Your task to perform on an android device: open app "Viber Messenger" (install if not already installed) and go to login screen Image 0: 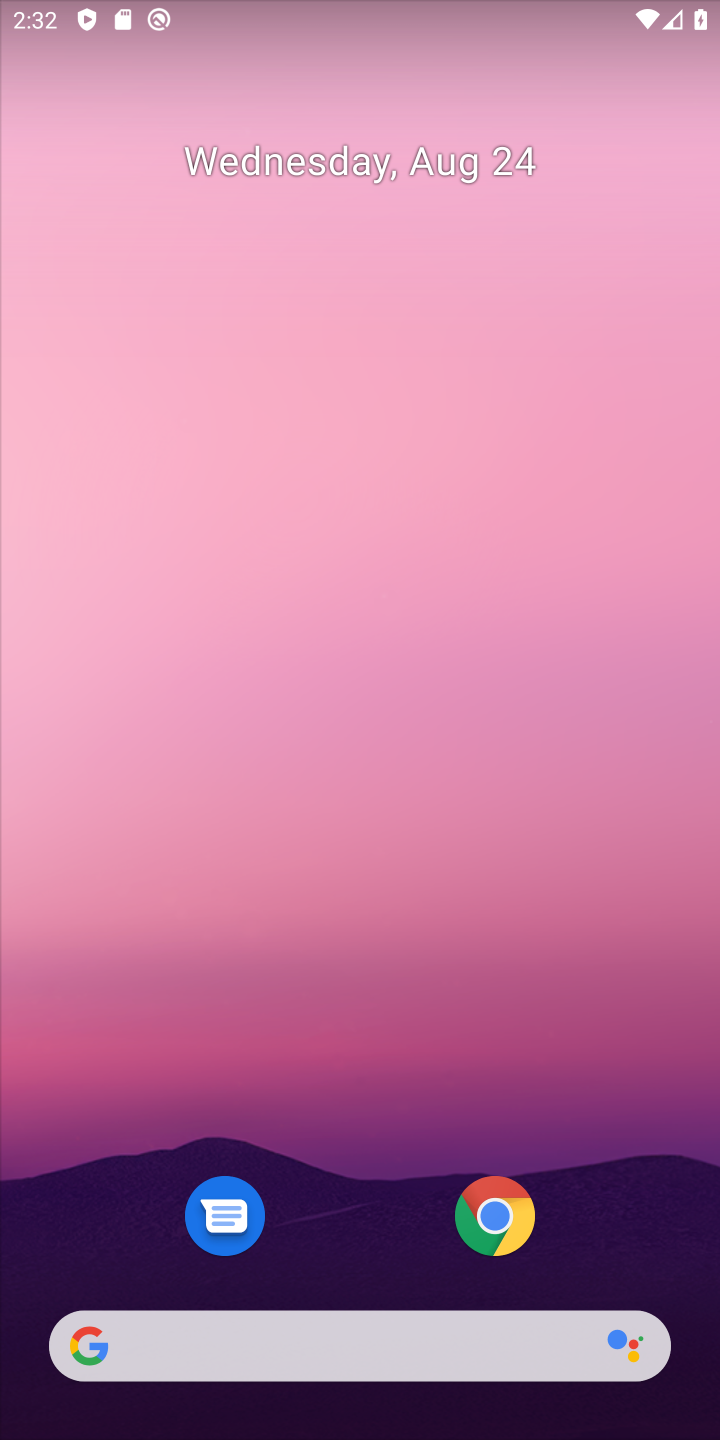
Step 0: press home button
Your task to perform on an android device: open app "Viber Messenger" (install if not already installed) and go to login screen Image 1: 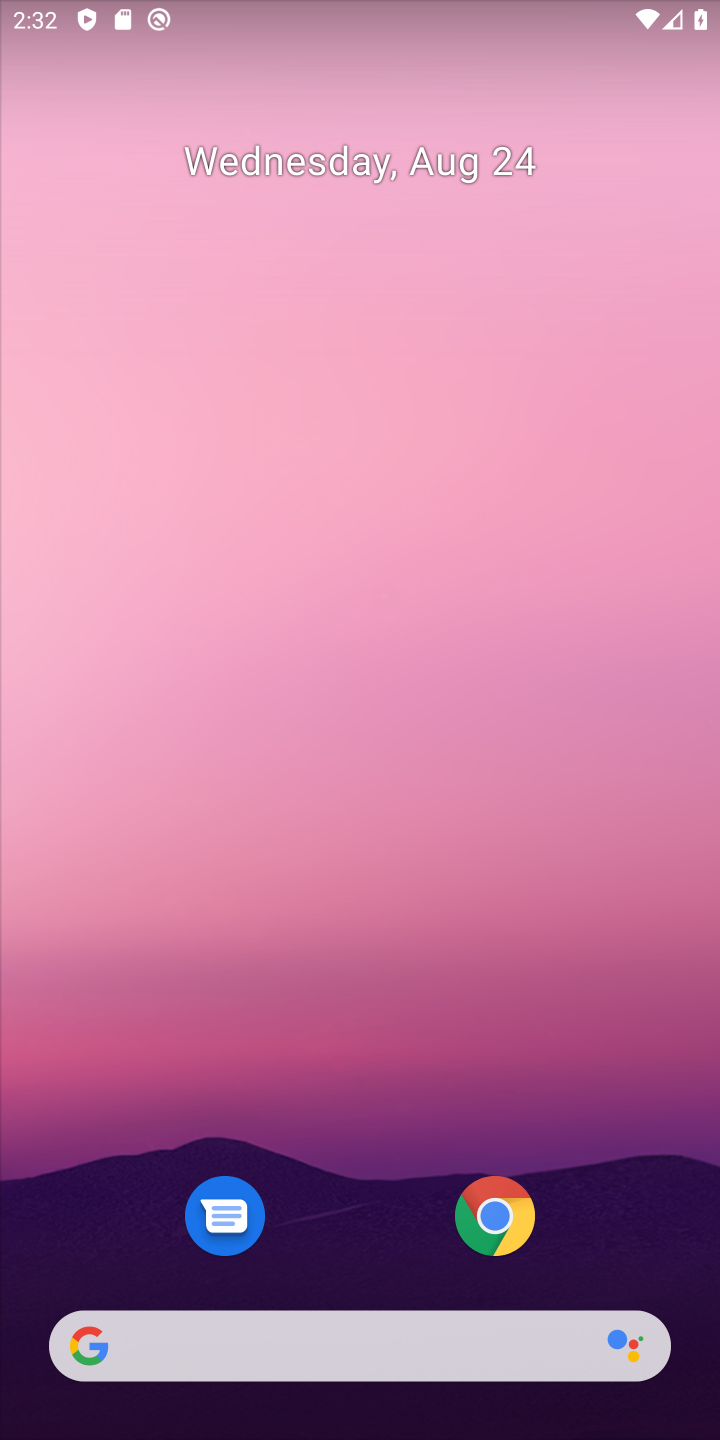
Step 1: drag from (677, 1169) to (720, 914)
Your task to perform on an android device: open app "Viber Messenger" (install if not already installed) and go to login screen Image 2: 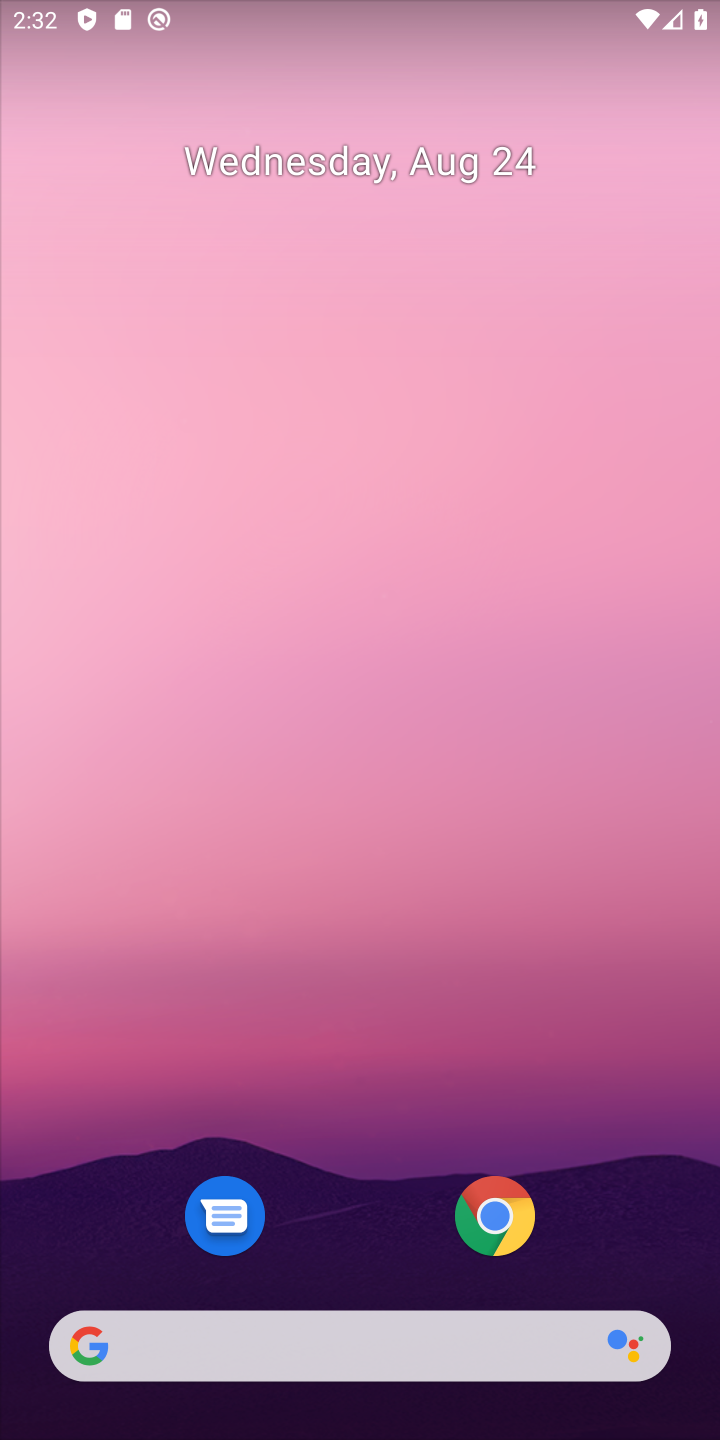
Step 2: drag from (647, 1235) to (597, 57)
Your task to perform on an android device: open app "Viber Messenger" (install if not already installed) and go to login screen Image 3: 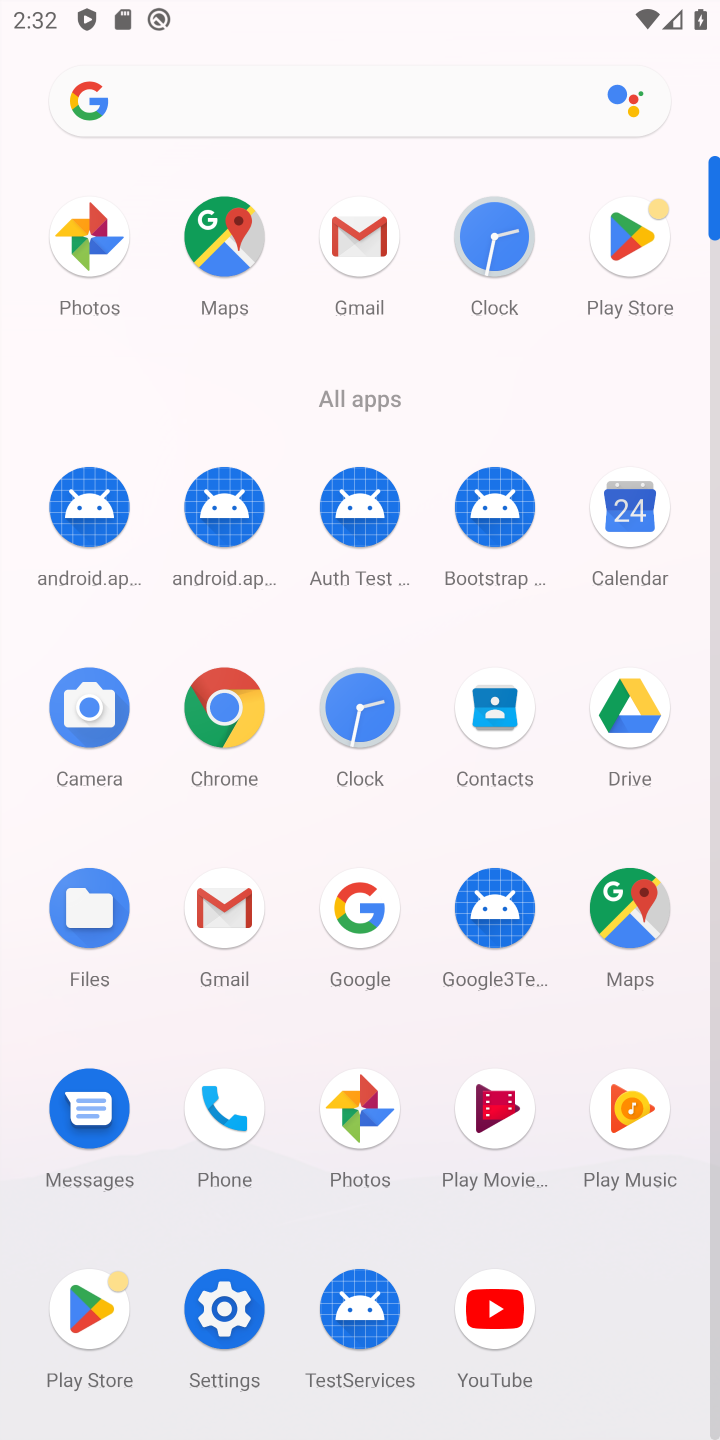
Step 3: click (634, 248)
Your task to perform on an android device: open app "Viber Messenger" (install if not already installed) and go to login screen Image 4: 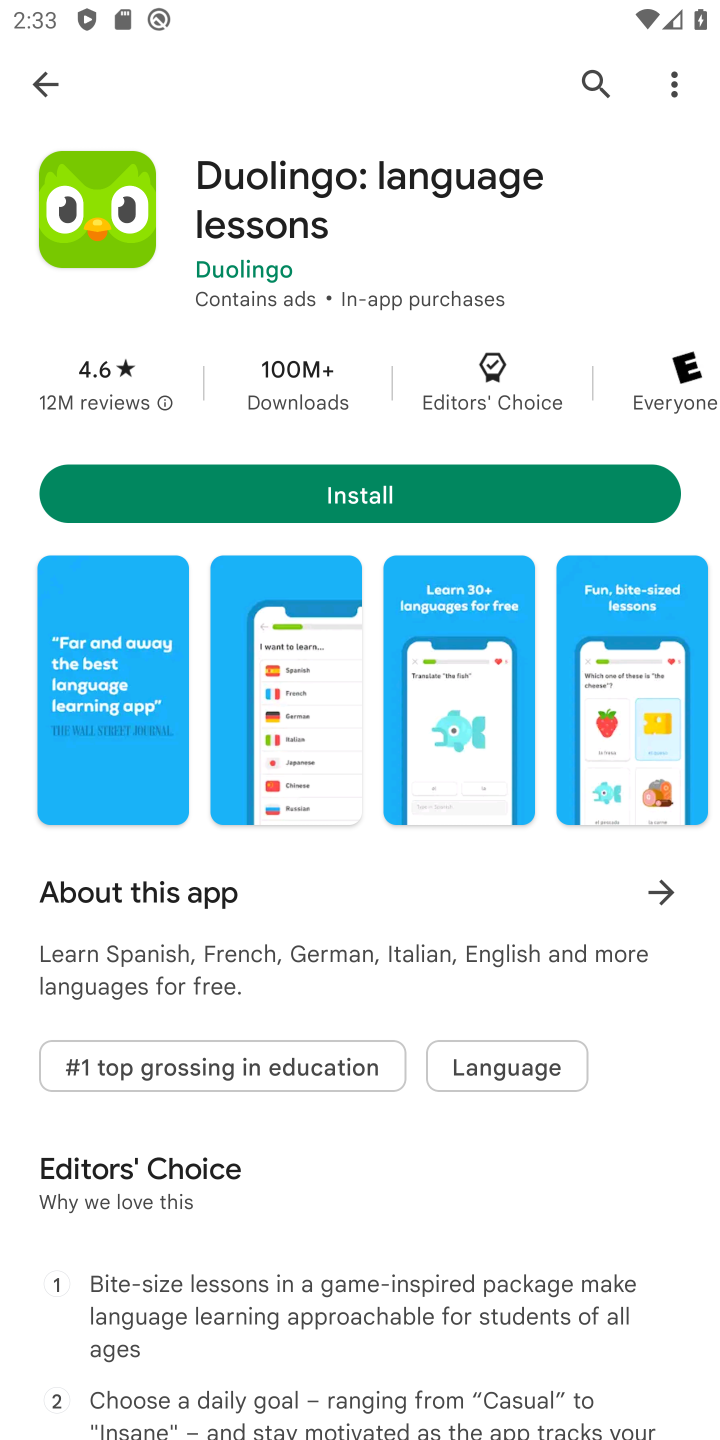
Step 4: press back button
Your task to perform on an android device: open app "Viber Messenger" (install if not already installed) and go to login screen Image 5: 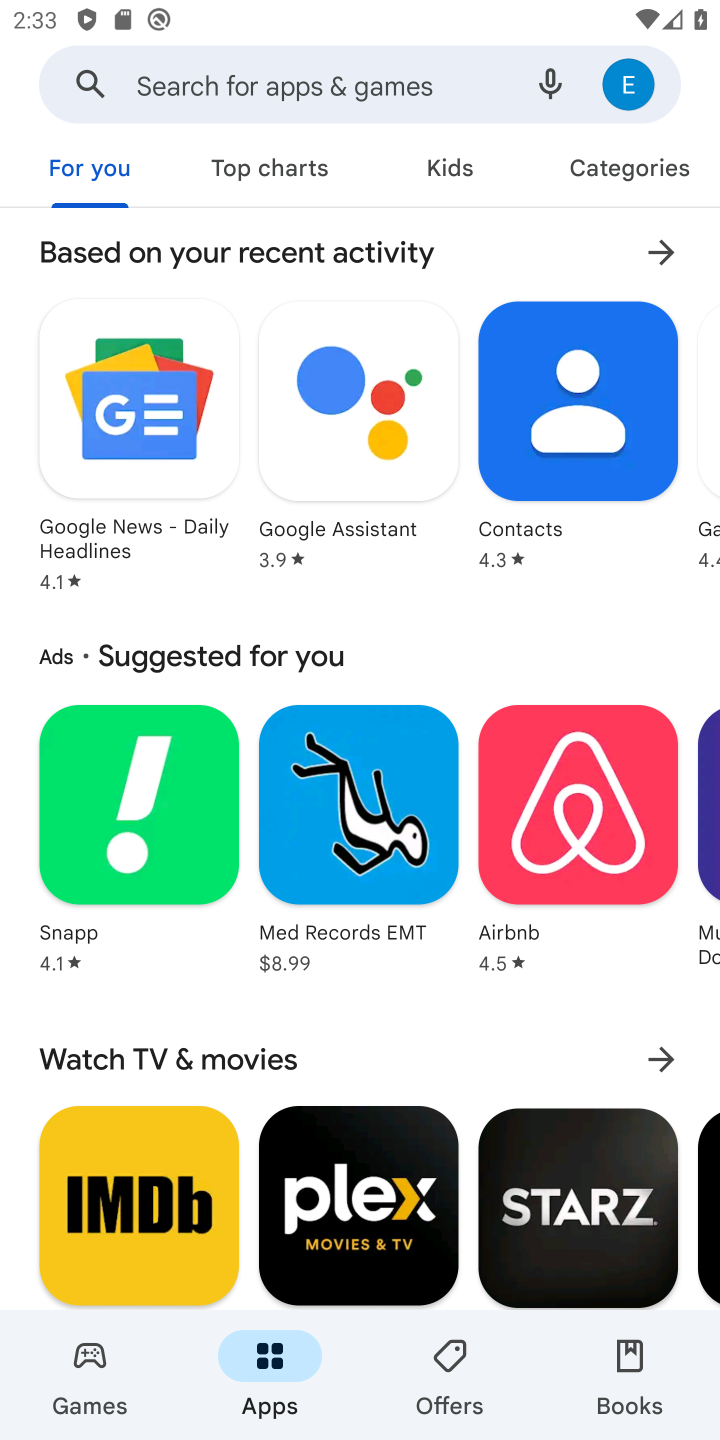
Step 5: click (366, 82)
Your task to perform on an android device: open app "Viber Messenger" (install if not already installed) and go to login screen Image 6: 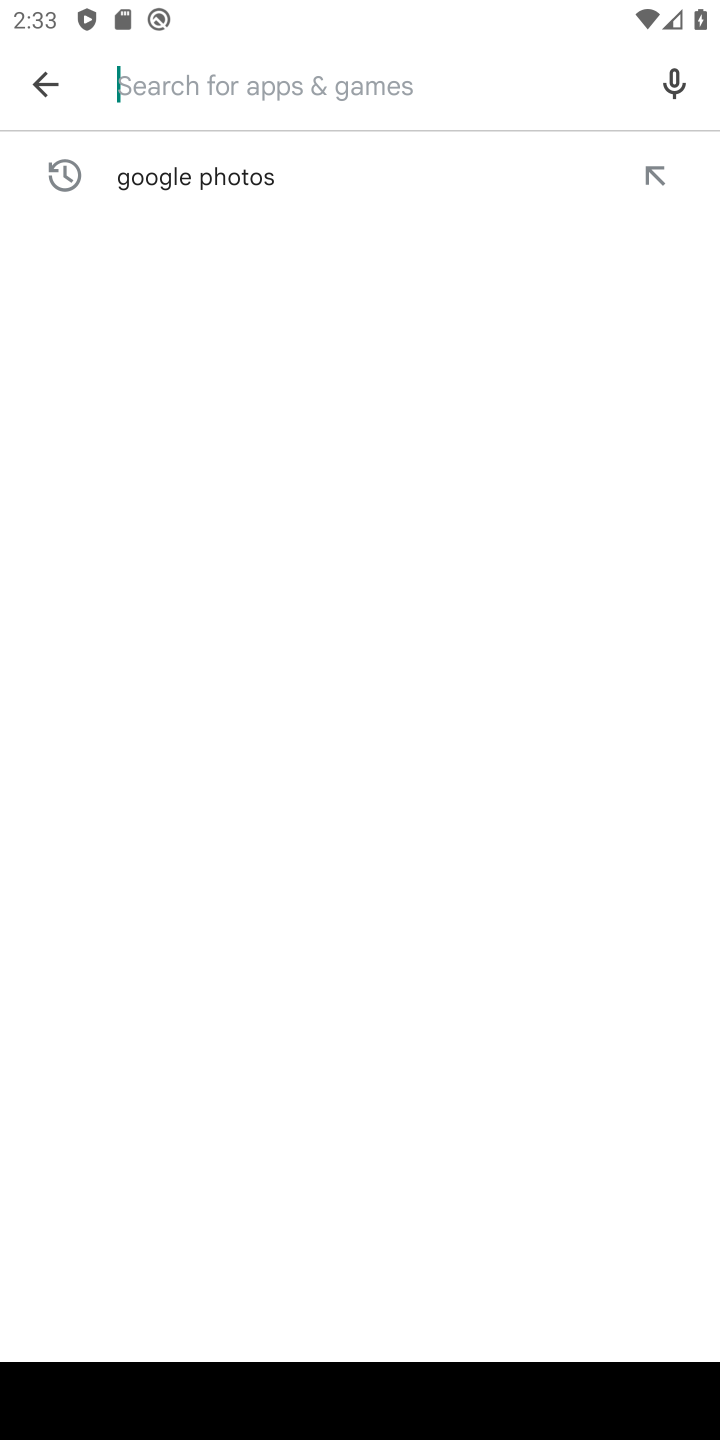
Step 6: type "Viber Messenger"
Your task to perform on an android device: open app "Viber Messenger" (install if not already installed) and go to login screen Image 7: 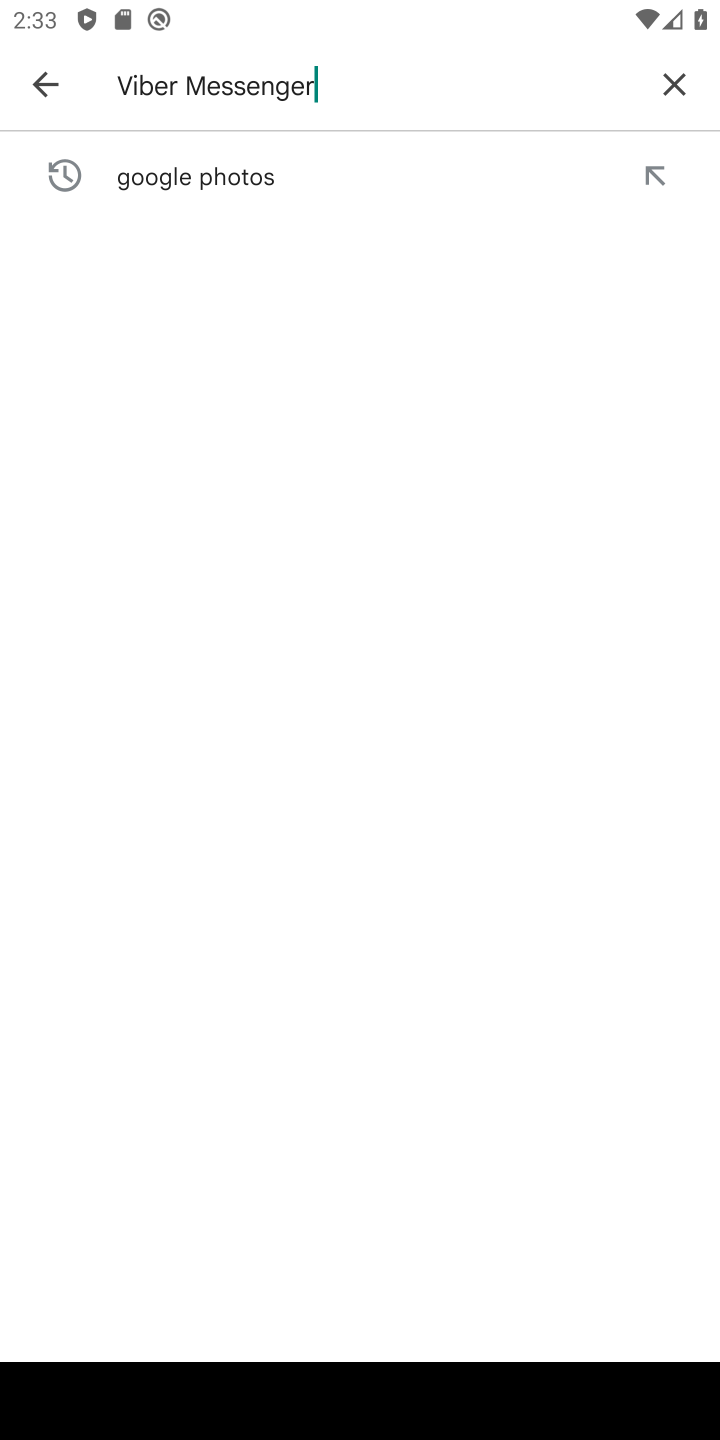
Step 7: press enter
Your task to perform on an android device: open app "Viber Messenger" (install if not already installed) and go to login screen Image 8: 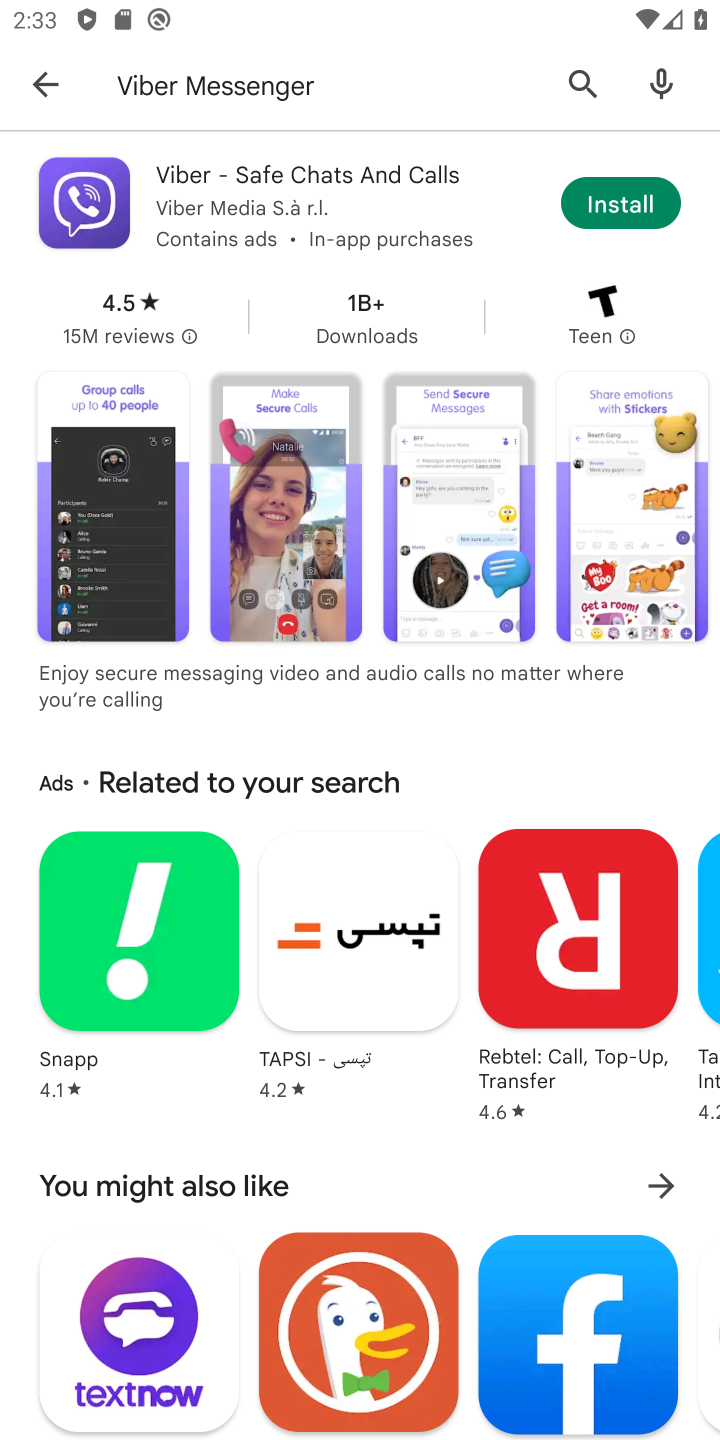
Step 8: click (648, 211)
Your task to perform on an android device: open app "Viber Messenger" (install if not already installed) and go to login screen Image 9: 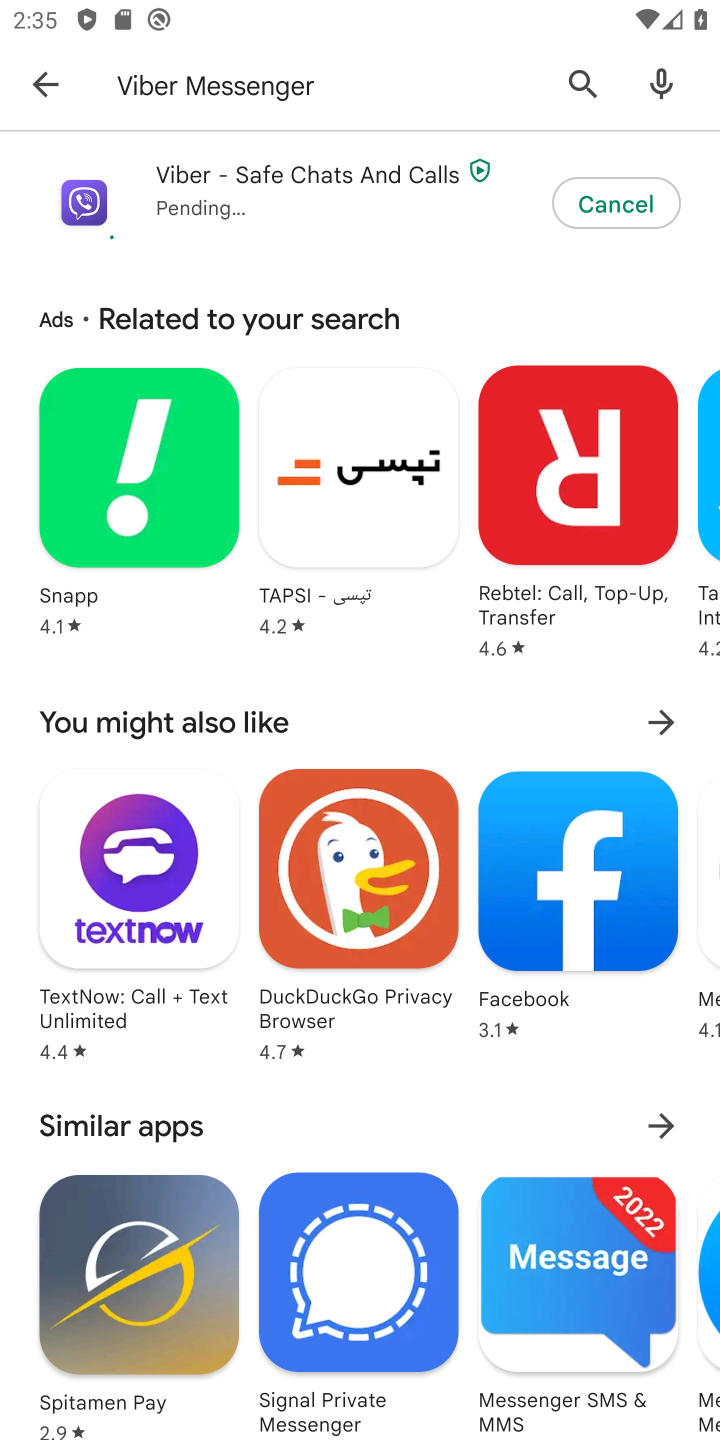
Step 9: task complete